Your task to perform on an android device: check data usage Image 0: 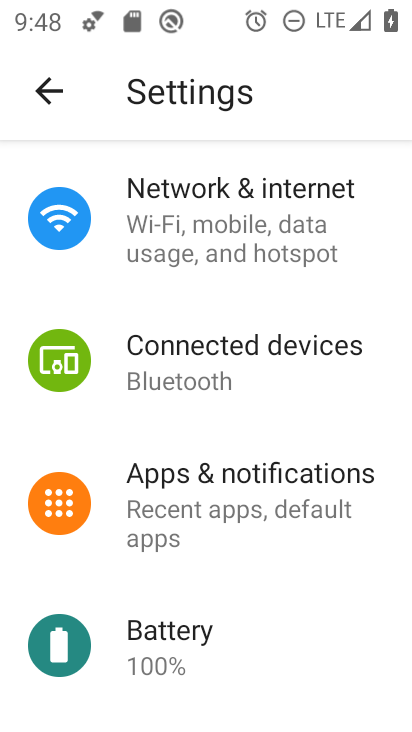
Step 0: click (230, 191)
Your task to perform on an android device: check data usage Image 1: 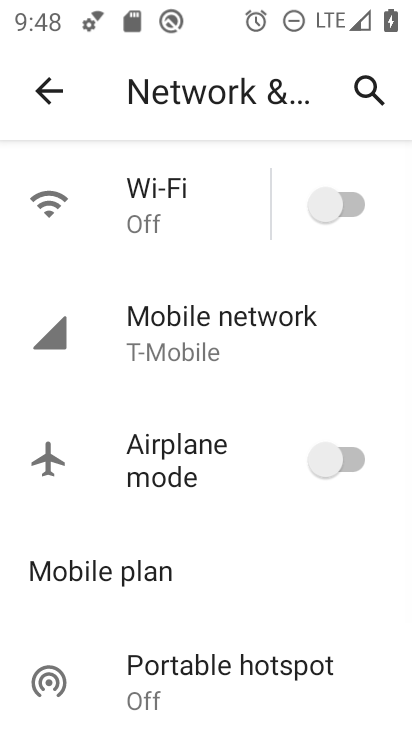
Step 1: click (227, 318)
Your task to perform on an android device: check data usage Image 2: 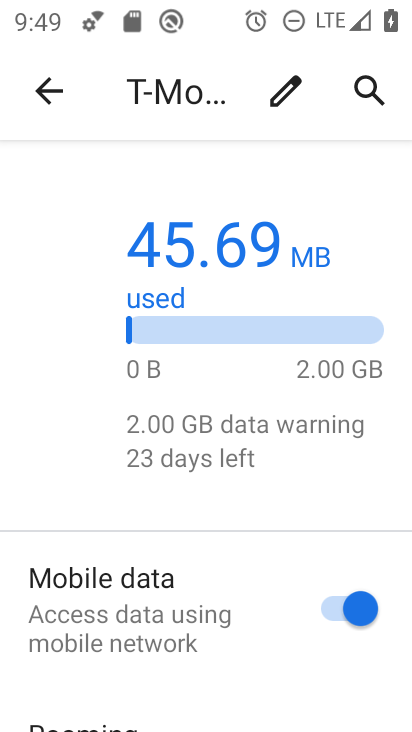
Step 2: task complete